Your task to perform on an android device: Search for Mexican restaurants on Maps Image 0: 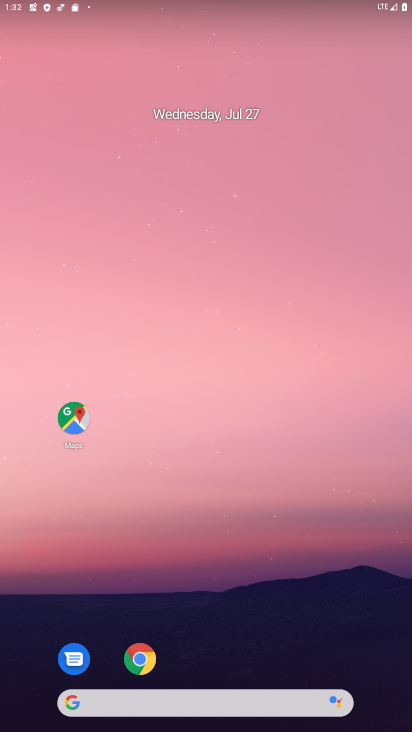
Step 0: drag from (169, 587) to (163, 108)
Your task to perform on an android device: Search for Mexican restaurants on Maps Image 1: 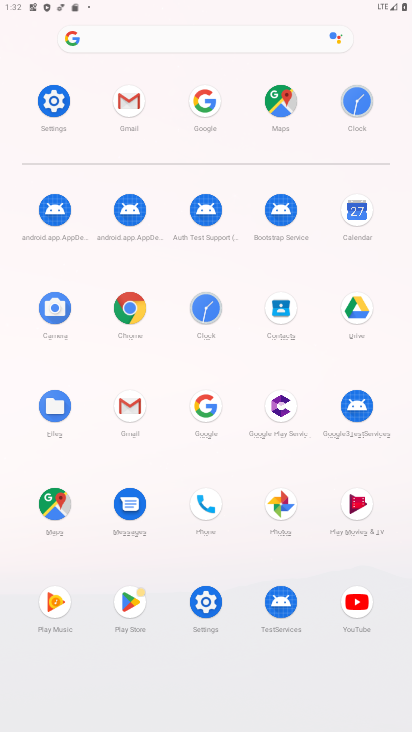
Step 1: click (51, 514)
Your task to perform on an android device: Search for Mexican restaurants on Maps Image 2: 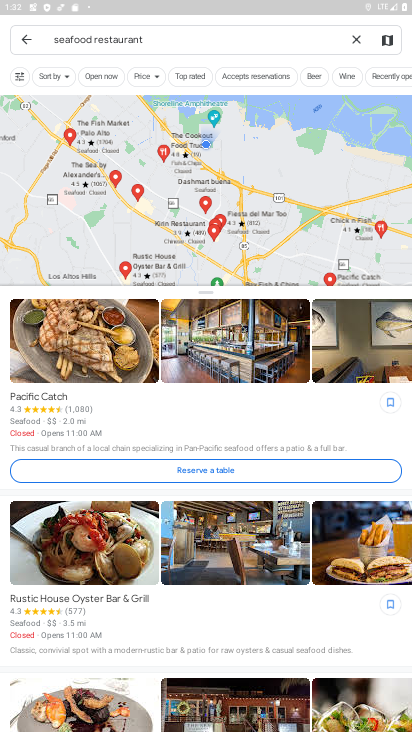
Step 2: click (357, 36)
Your task to perform on an android device: Search for Mexican restaurants on Maps Image 3: 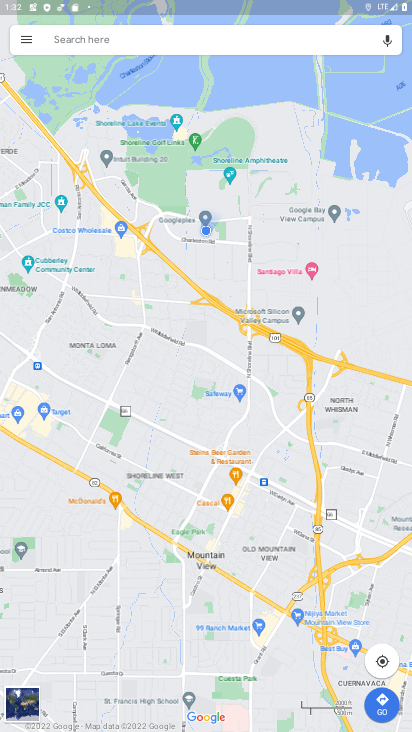
Step 3: click (170, 39)
Your task to perform on an android device: Search for Mexican restaurants on Maps Image 4: 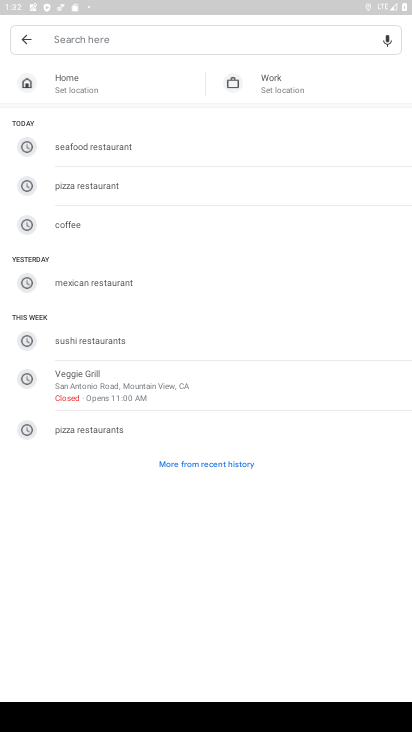
Step 4: type "mexican restaurants"
Your task to perform on an android device: Search for Mexican restaurants on Maps Image 5: 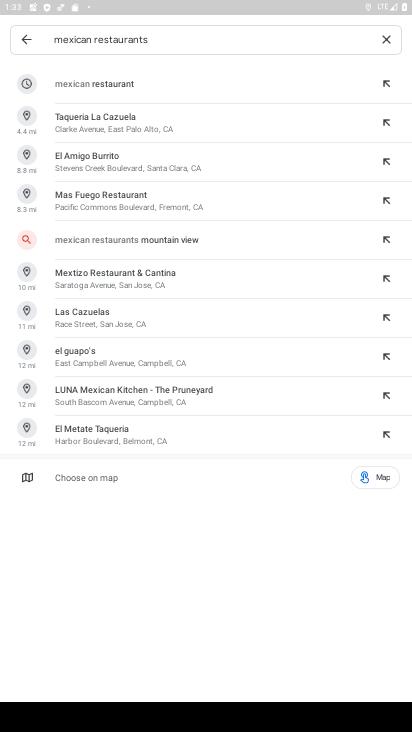
Step 5: click (118, 83)
Your task to perform on an android device: Search for Mexican restaurants on Maps Image 6: 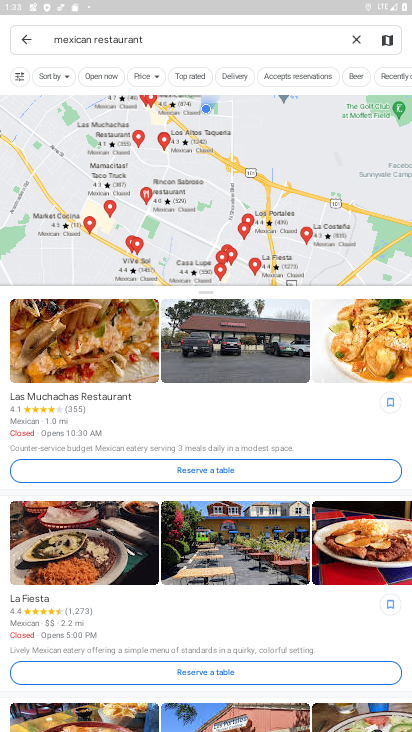
Step 6: task complete